Your task to perform on an android device: open device folders in google photos Image 0: 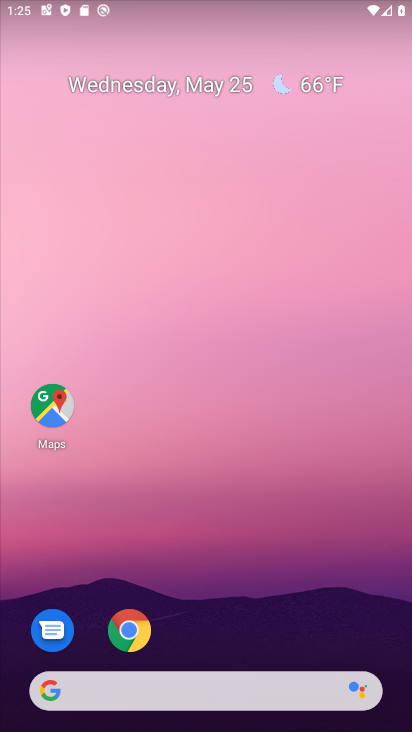
Step 0: press home button
Your task to perform on an android device: open device folders in google photos Image 1: 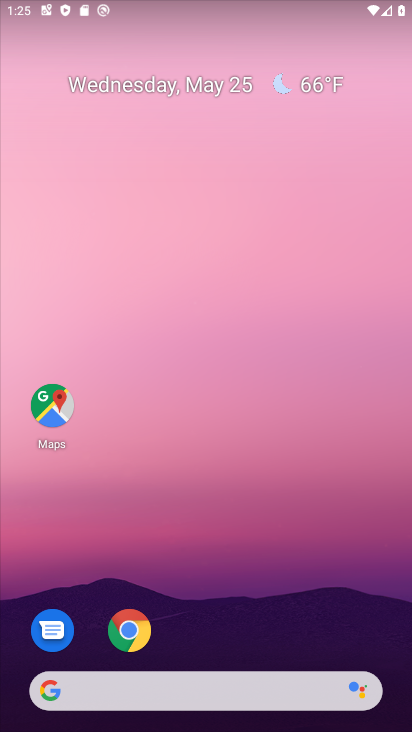
Step 1: drag from (207, 642) to (204, 117)
Your task to perform on an android device: open device folders in google photos Image 2: 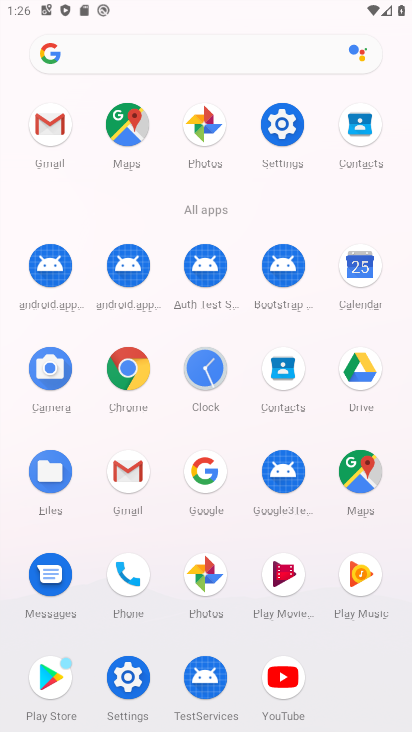
Step 2: click (201, 568)
Your task to perform on an android device: open device folders in google photos Image 3: 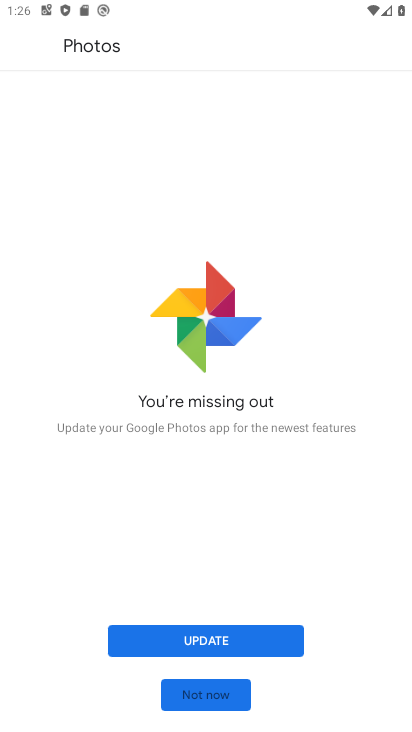
Step 3: click (204, 639)
Your task to perform on an android device: open device folders in google photos Image 4: 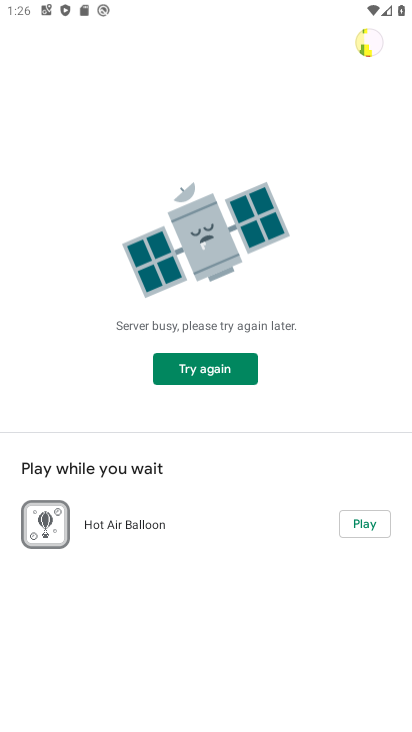
Step 4: click (204, 368)
Your task to perform on an android device: open device folders in google photos Image 5: 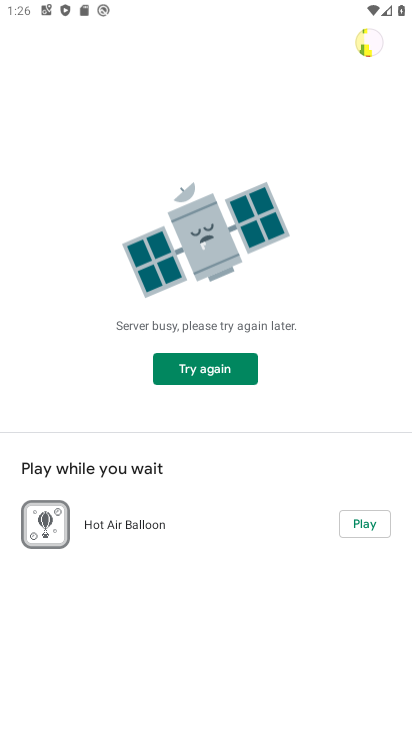
Step 5: click (211, 372)
Your task to perform on an android device: open device folders in google photos Image 6: 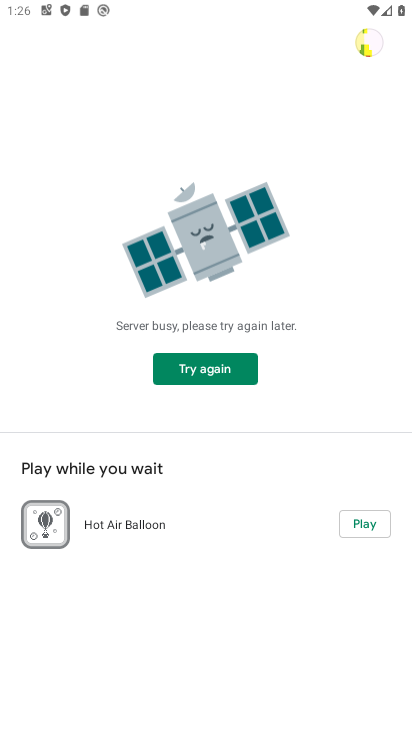
Step 6: click (211, 372)
Your task to perform on an android device: open device folders in google photos Image 7: 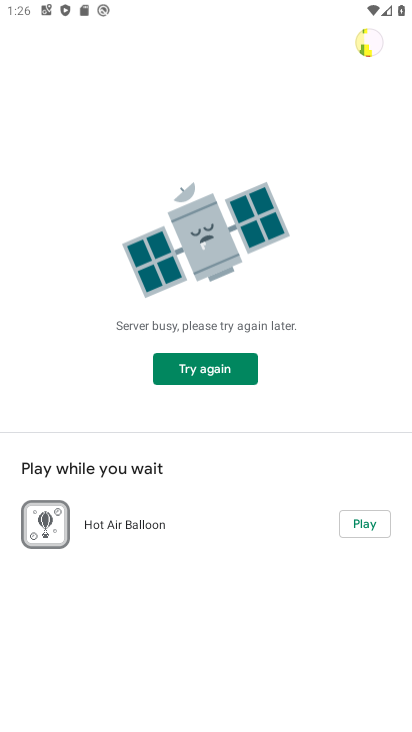
Step 7: task complete